Your task to perform on an android device: Go to eBay Image 0: 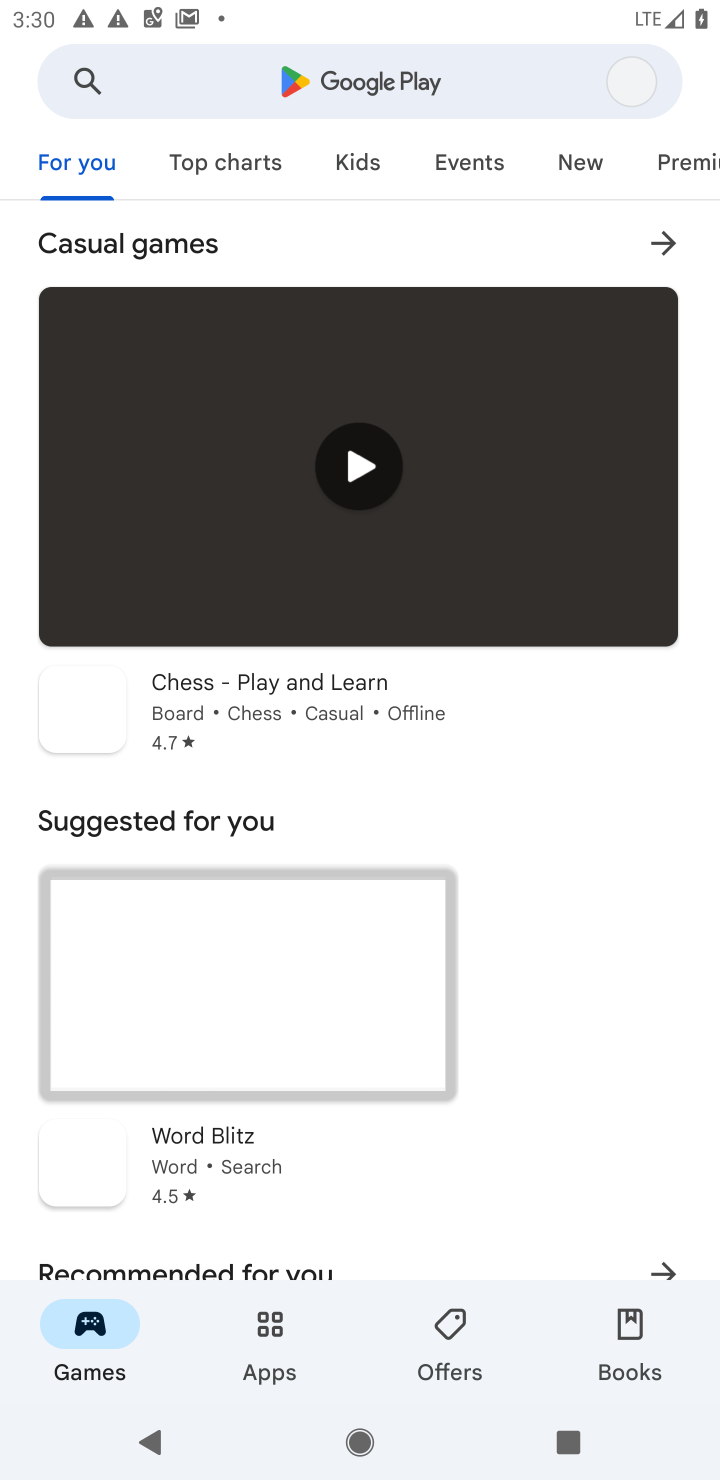
Step 0: press home button
Your task to perform on an android device: Go to eBay Image 1: 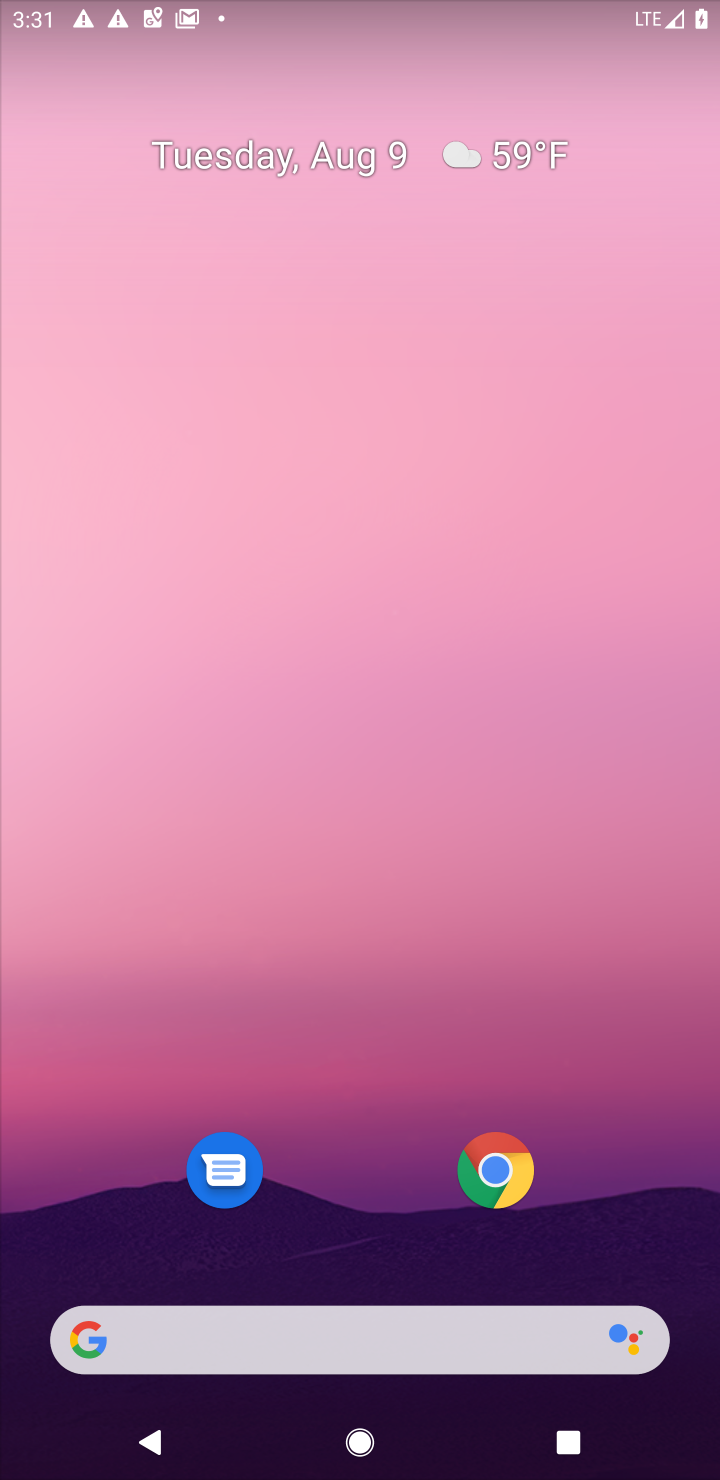
Step 1: click (84, 1333)
Your task to perform on an android device: Go to eBay Image 2: 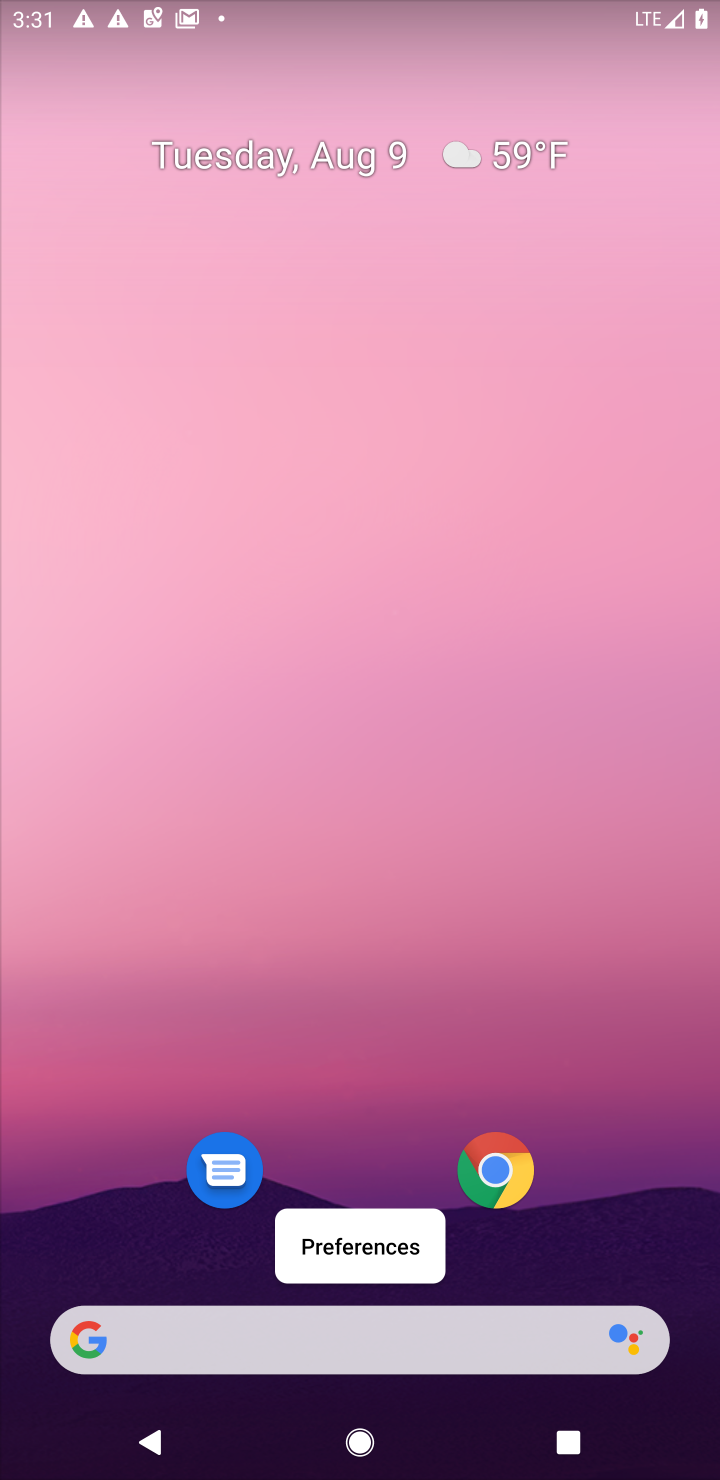
Step 2: click (84, 1333)
Your task to perform on an android device: Go to eBay Image 3: 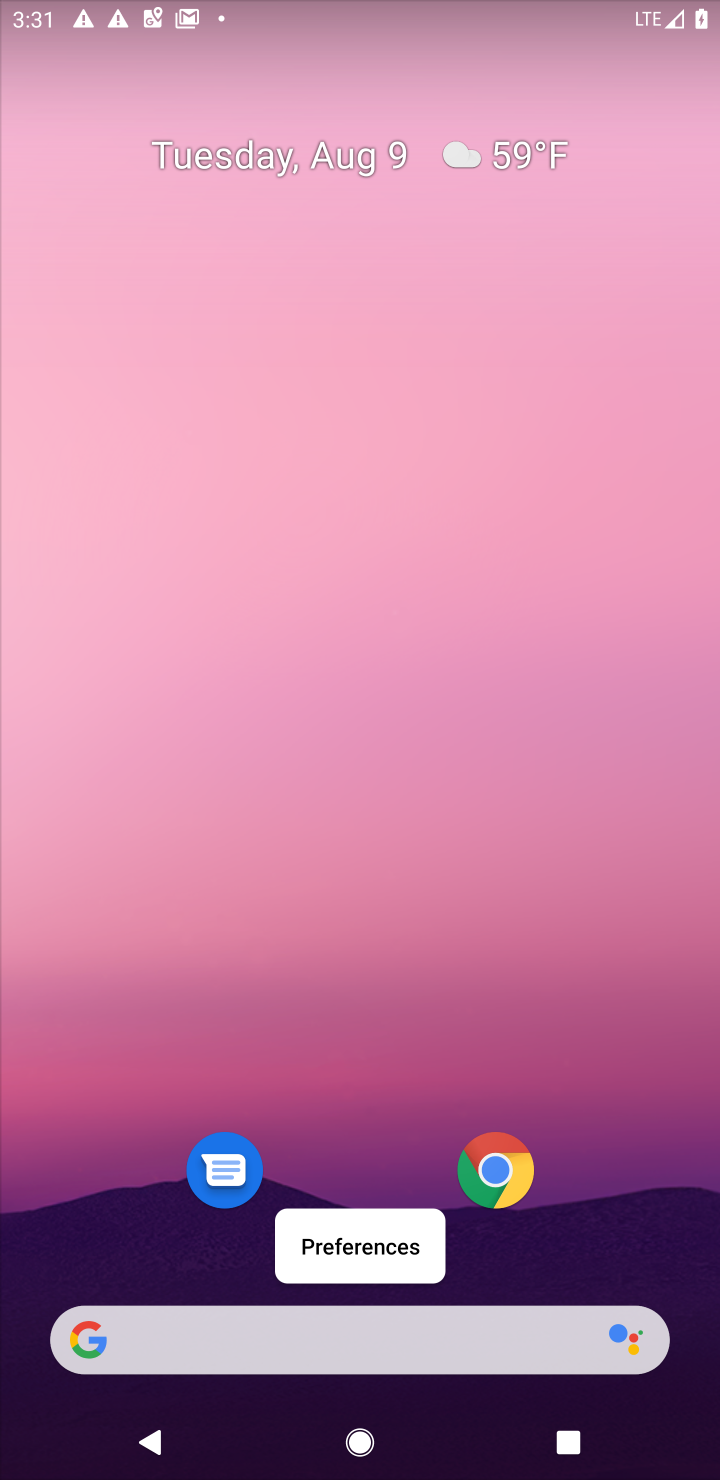
Step 3: click (8, 1337)
Your task to perform on an android device: Go to eBay Image 4: 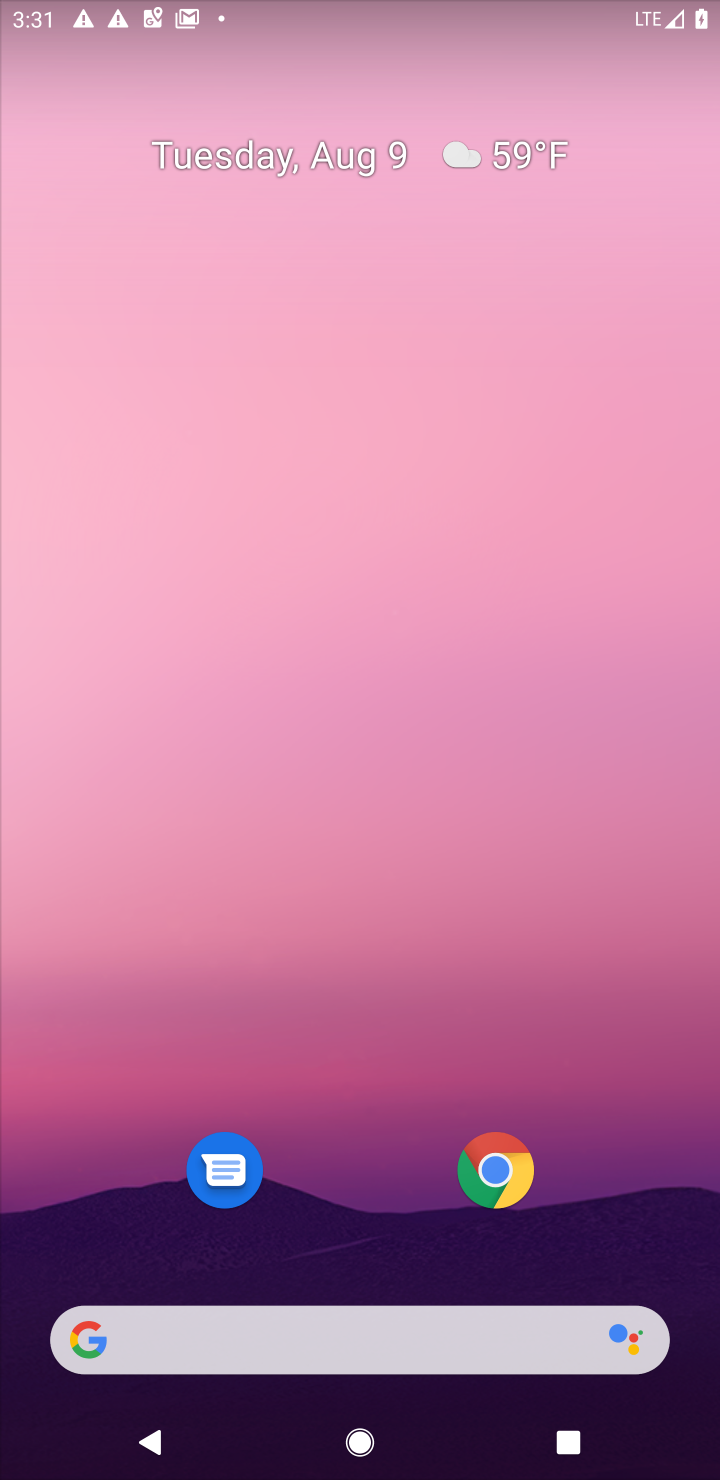
Step 4: click (87, 1337)
Your task to perform on an android device: Go to eBay Image 5: 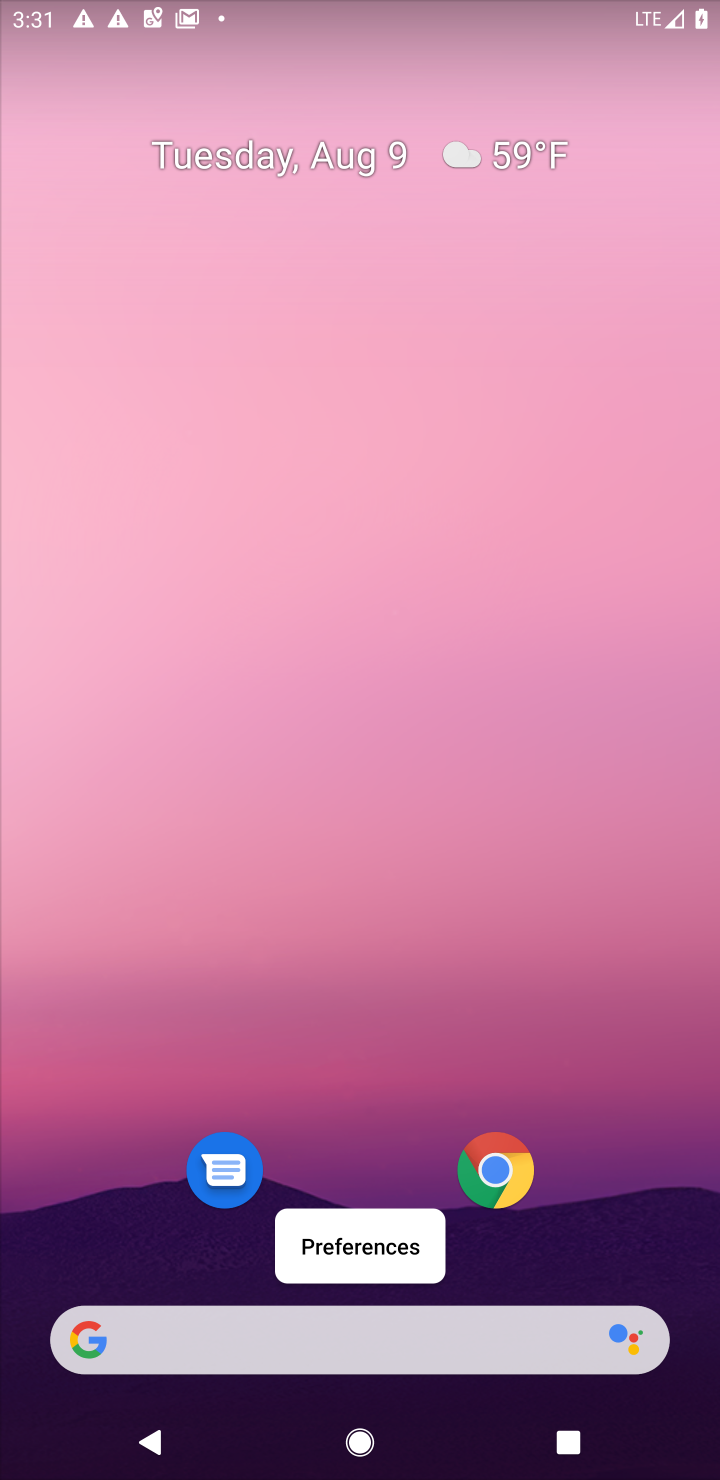
Step 5: click (90, 1335)
Your task to perform on an android device: Go to eBay Image 6: 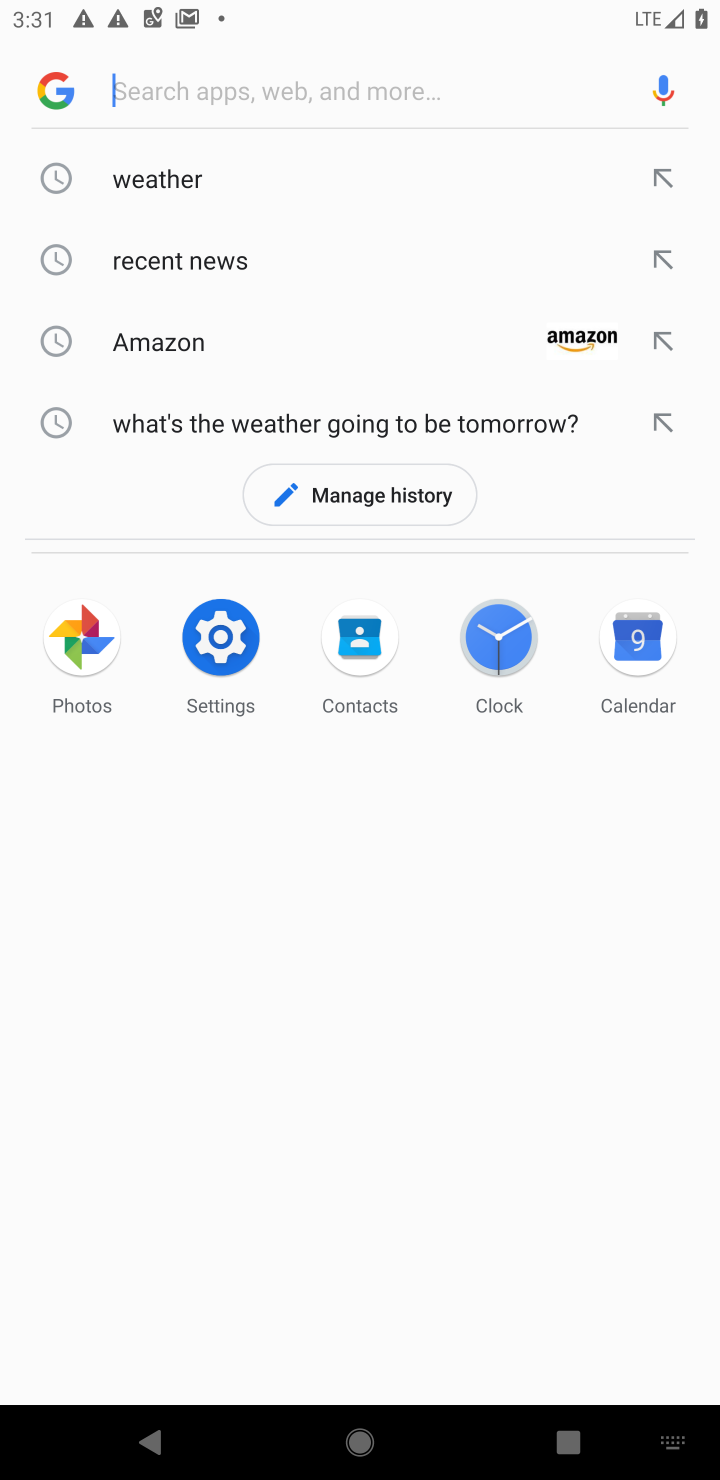
Step 6: type " eBay"
Your task to perform on an android device: Go to eBay Image 7: 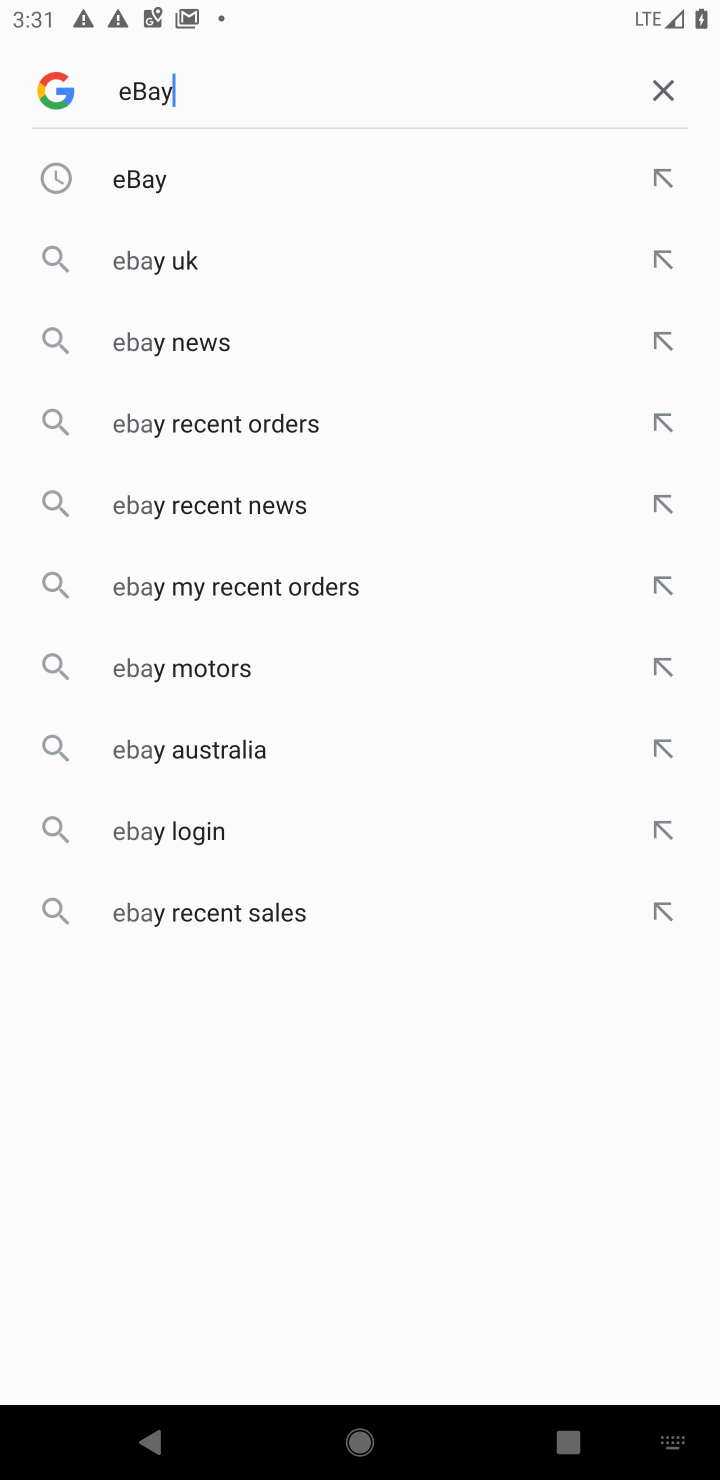
Step 7: press enter
Your task to perform on an android device: Go to eBay Image 8: 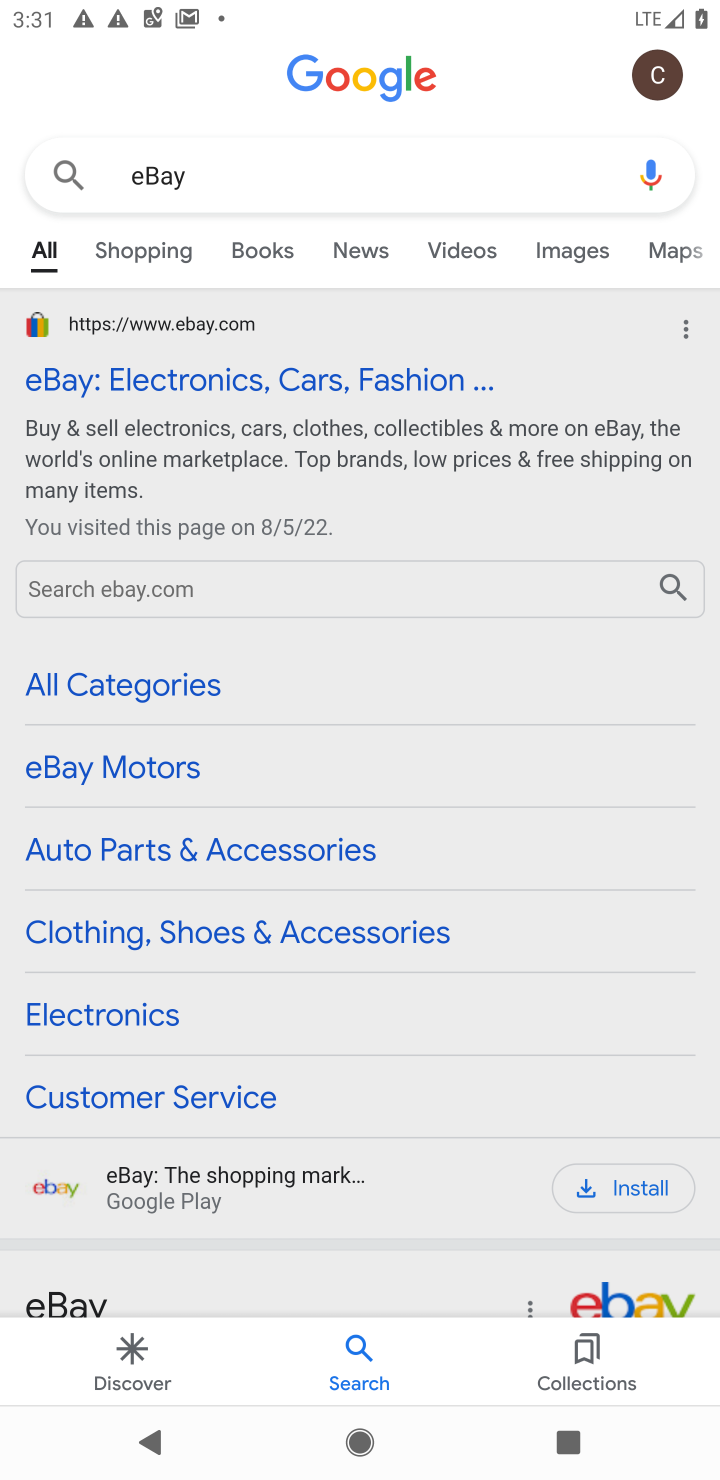
Step 8: click (213, 377)
Your task to perform on an android device: Go to eBay Image 9: 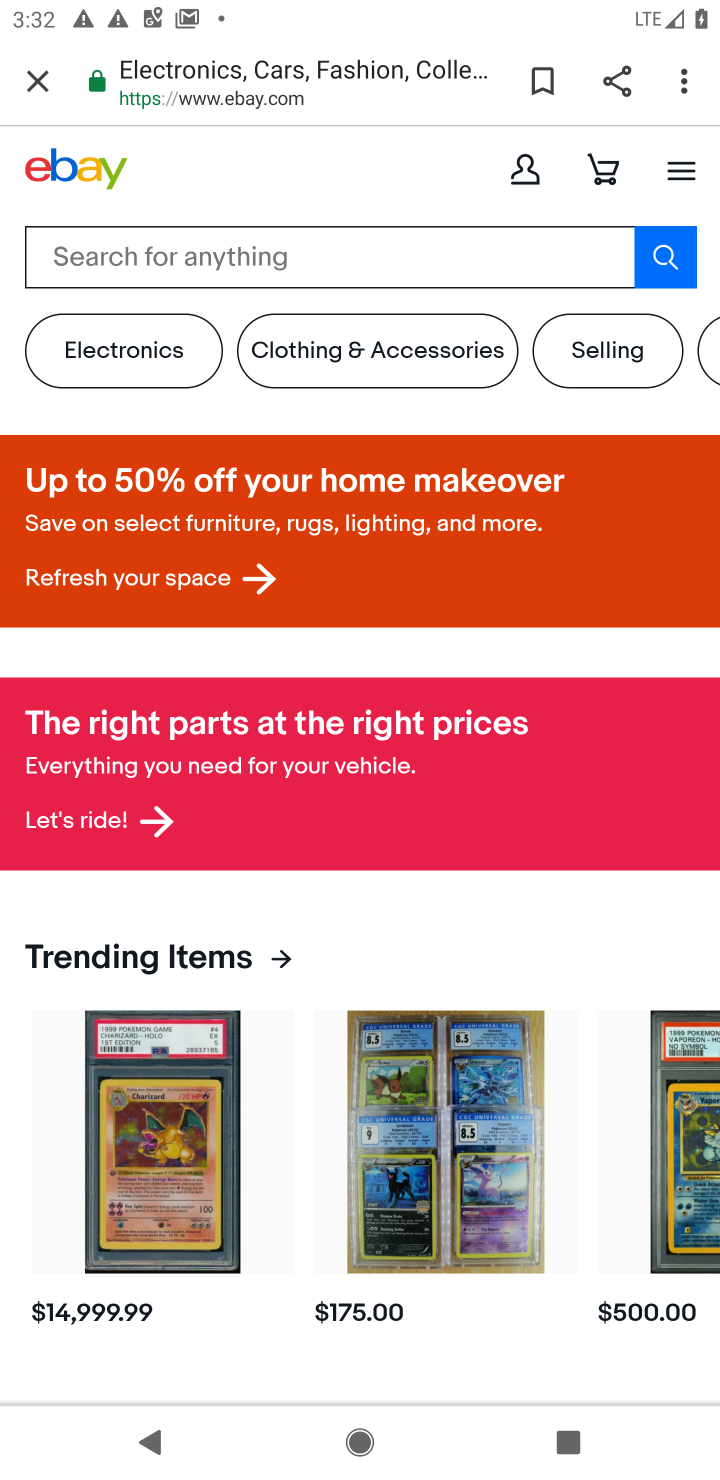
Step 9: task complete